Your task to perform on an android device: check data usage Image 0: 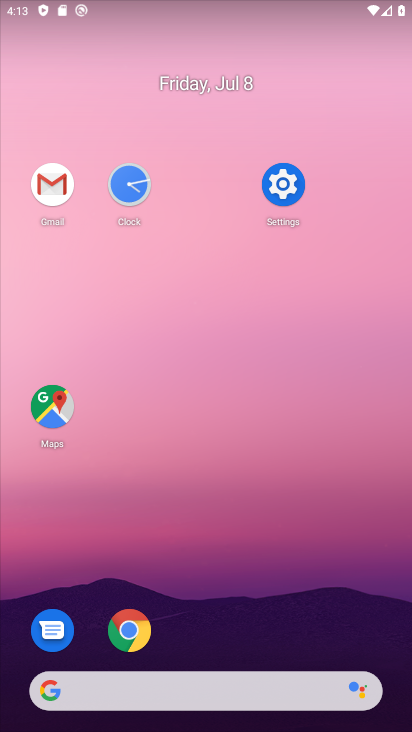
Step 0: click (288, 185)
Your task to perform on an android device: check data usage Image 1: 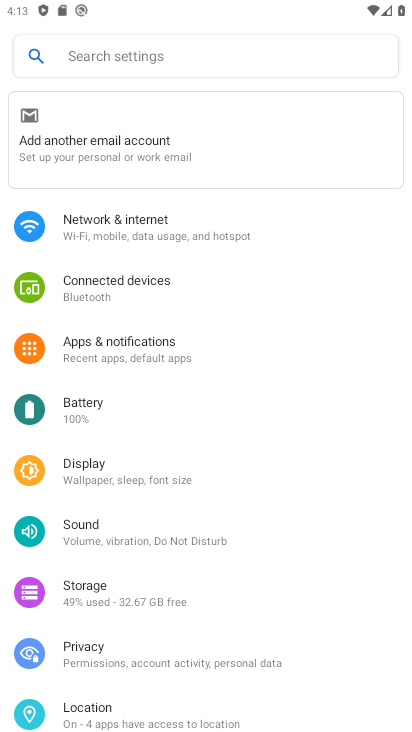
Step 1: click (192, 238)
Your task to perform on an android device: check data usage Image 2: 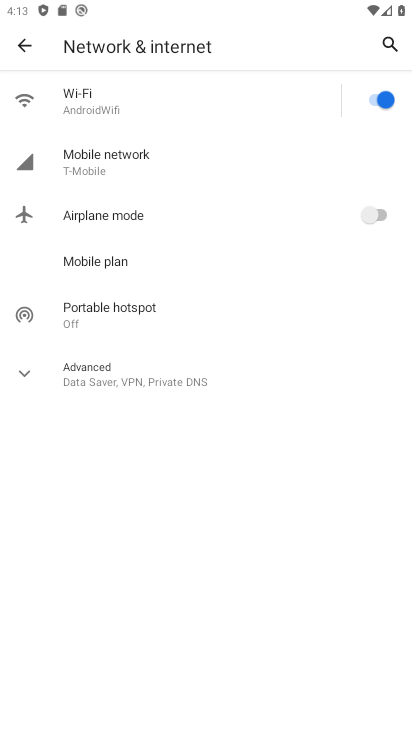
Step 2: click (186, 166)
Your task to perform on an android device: check data usage Image 3: 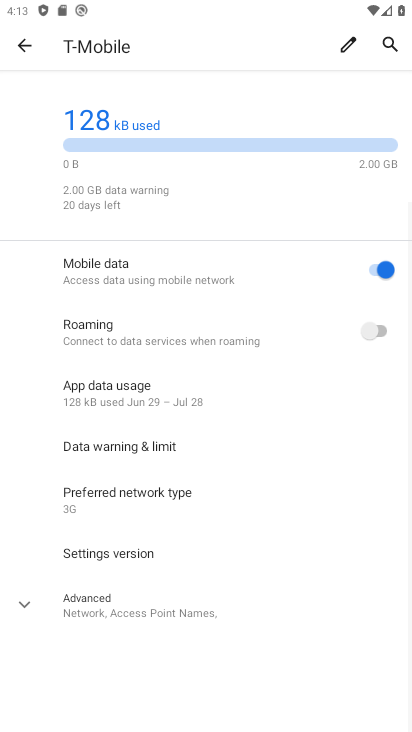
Step 3: task complete